Your task to perform on an android device: toggle improve location accuracy Image 0: 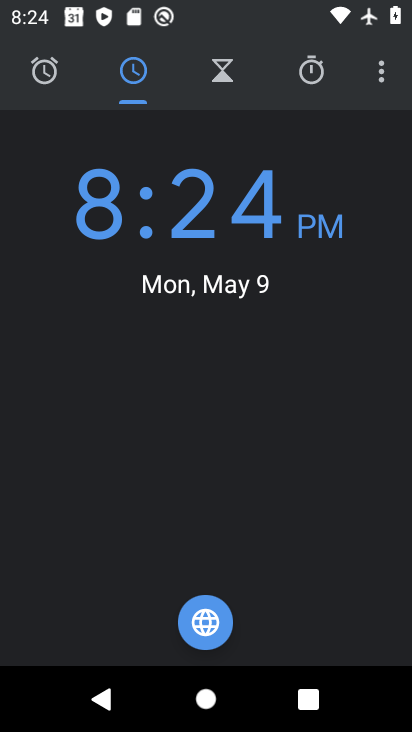
Step 0: drag from (224, 590) to (218, 128)
Your task to perform on an android device: toggle improve location accuracy Image 1: 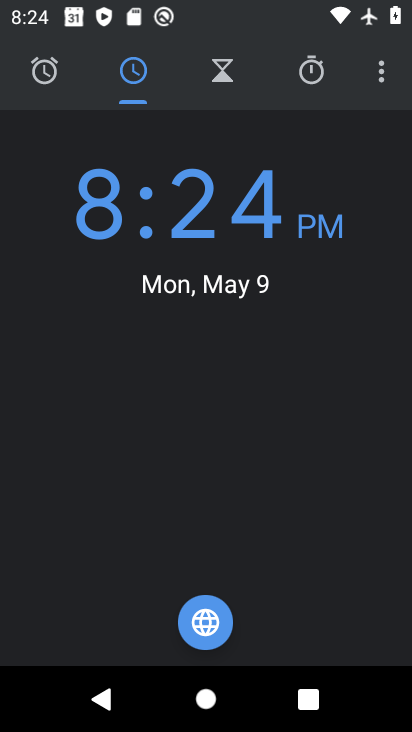
Step 1: press home button
Your task to perform on an android device: toggle improve location accuracy Image 2: 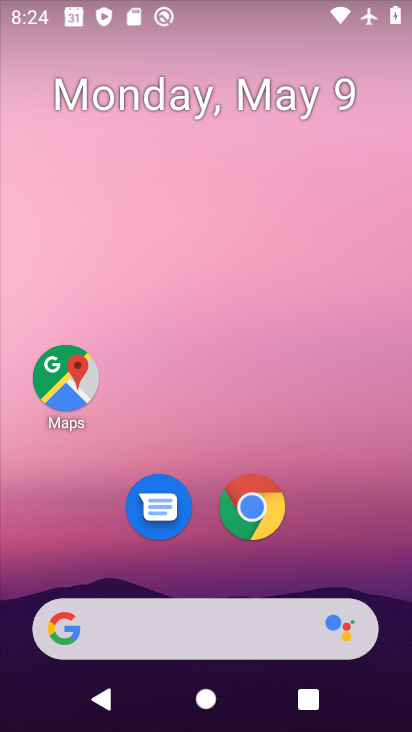
Step 2: drag from (203, 577) to (184, 1)
Your task to perform on an android device: toggle improve location accuracy Image 3: 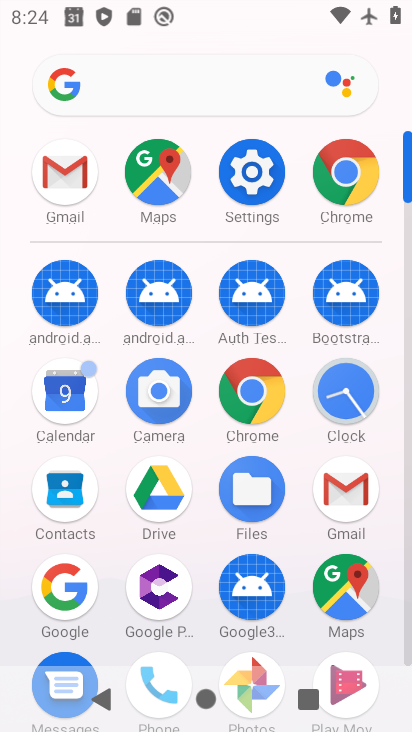
Step 3: click (256, 168)
Your task to perform on an android device: toggle improve location accuracy Image 4: 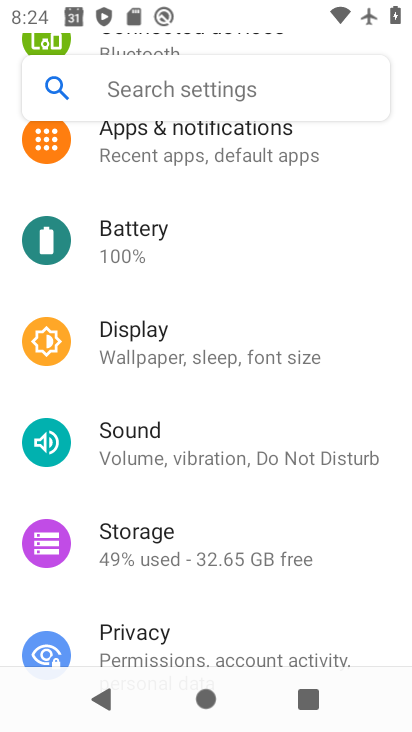
Step 4: drag from (226, 516) to (228, 73)
Your task to perform on an android device: toggle improve location accuracy Image 5: 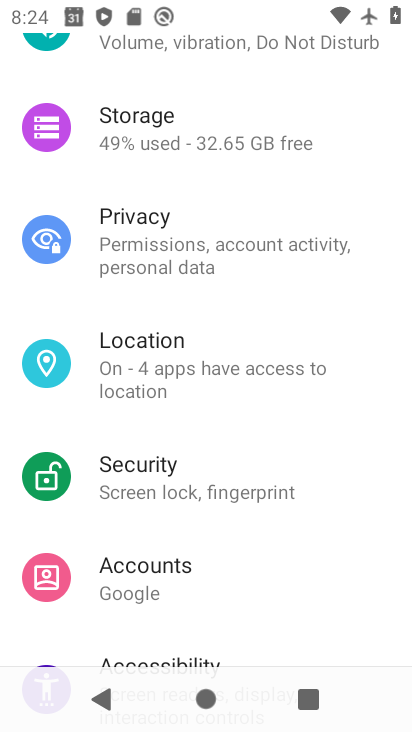
Step 5: click (177, 361)
Your task to perform on an android device: toggle improve location accuracy Image 6: 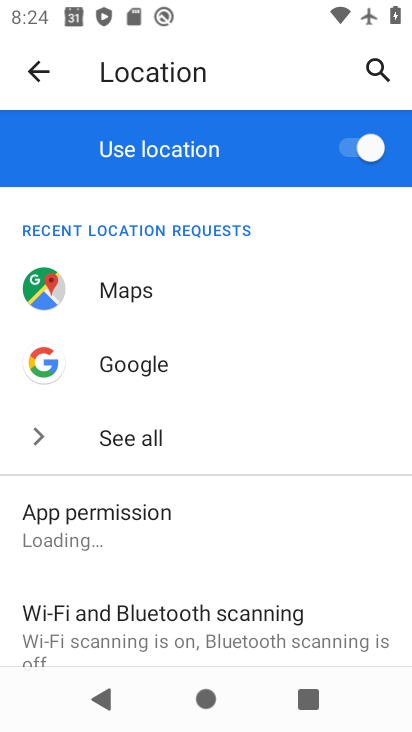
Step 6: drag from (184, 571) to (197, 69)
Your task to perform on an android device: toggle improve location accuracy Image 7: 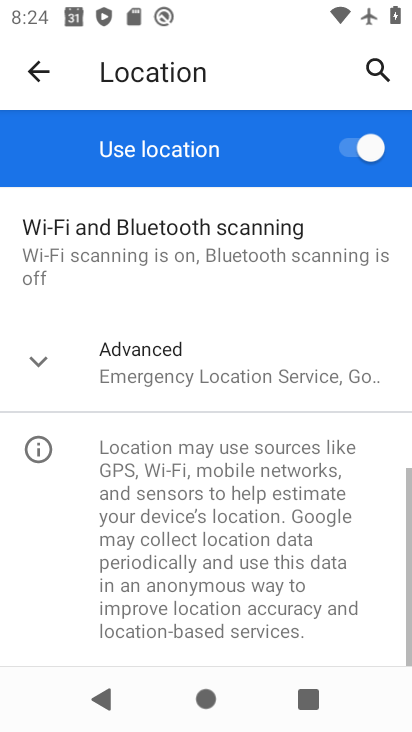
Step 7: click (159, 378)
Your task to perform on an android device: toggle improve location accuracy Image 8: 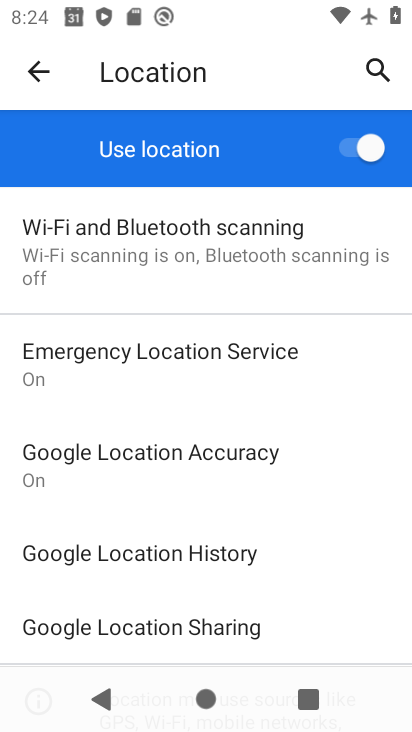
Step 8: click (152, 460)
Your task to perform on an android device: toggle improve location accuracy Image 9: 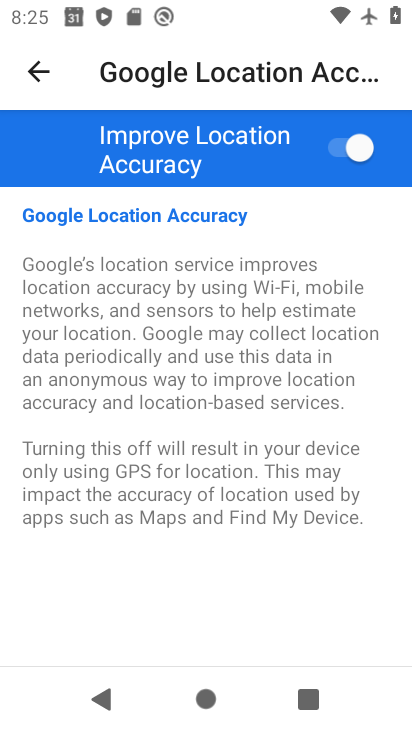
Step 9: click (346, 147)
Your task to perform on an android device: toggle improve location accuracy Image 10: 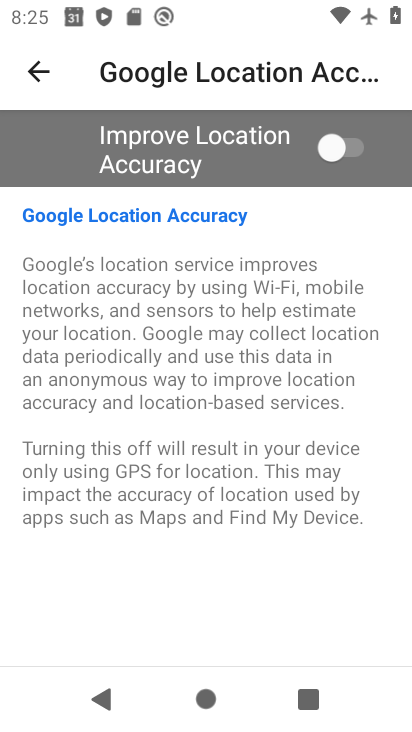
Step 10: task complete